Your task to perform on an android device: Open sound settings Image 0: 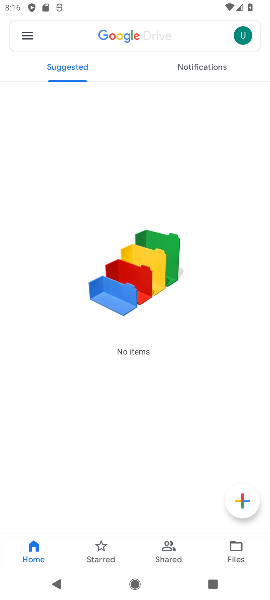
Step 0: drag from (166, 471) to (40, 540)
Your task to perform on an android device: Open sound settings Image 1: 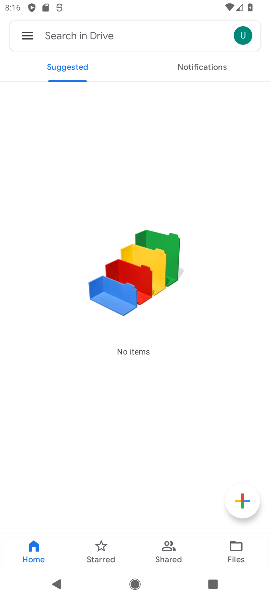
Step 1: drag from (183, 447) to (192, 280)
Your task to perform on an android device: Open sound settings Image 2: 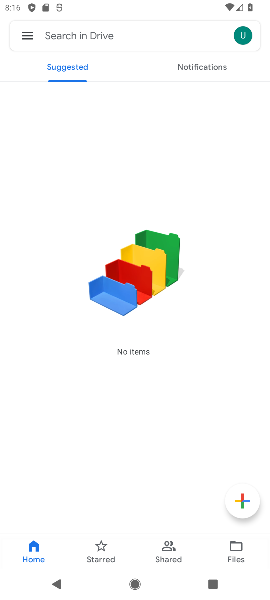
Step 2: drag from (86, 469) to (202, 235)
Your task to perform on an android device: Open sound settings Image 3: 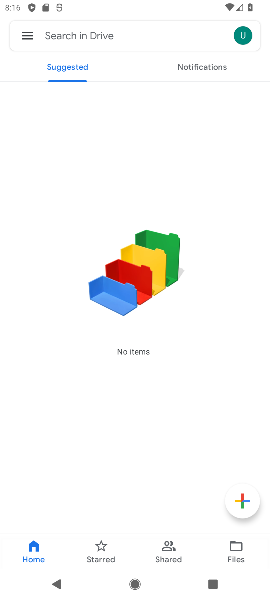
Step 3: drag from (116, 406) to (179, 156)
Your task to perform on an android device: Open sound settings Image 4: 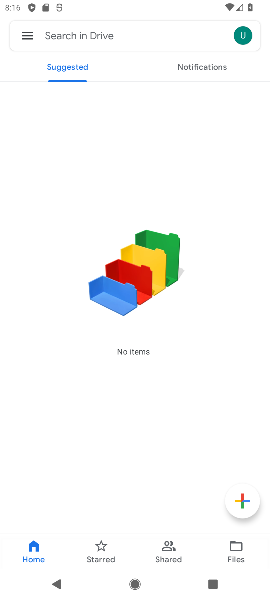
Step 4: press home button
Your task to perform on an android device: Open sound settings Image 5: 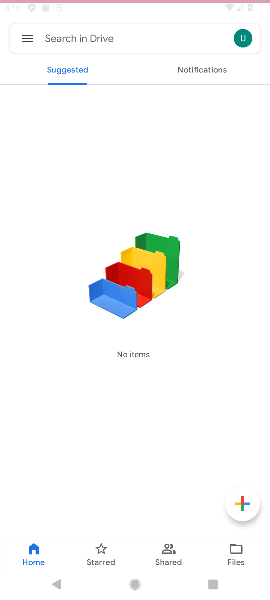
Step 5: press home button
Your task to perform on an android device: Open sound settings Image 6: 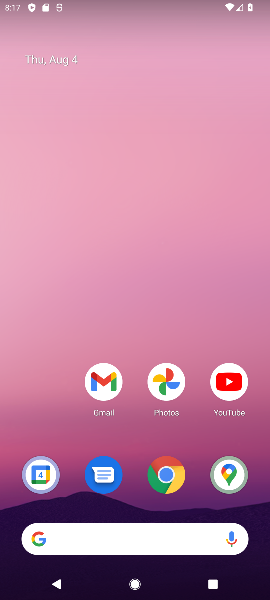
Step 6: drag from (140, 469) to (145, 308)
Your task to perform on an android device: Open sound settings Image 7: 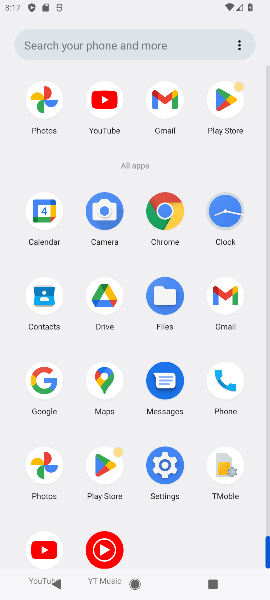
Step 7: click (167, 453)
Your task to perform on an android device: Open sound settings Image 8: 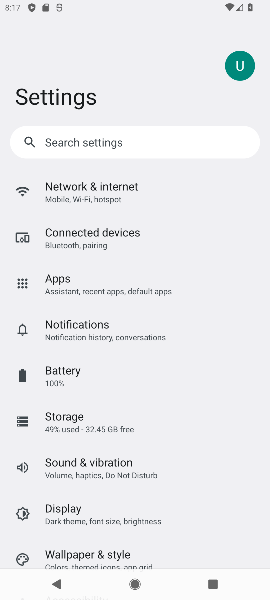
Step 8: drag from (104, 477) to (101, 178)
Your task to perform on an android device: Open sound settings Image 9: 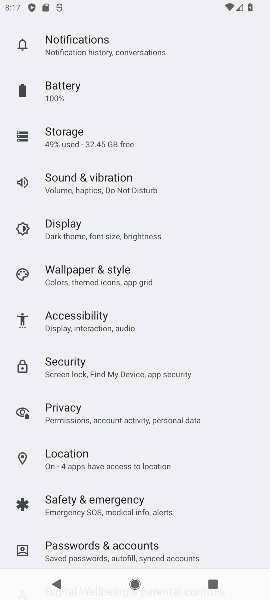
Step 9: drag from (101, 454) to (140, 182)
Your task to perform on an android device: Open sound settings Image 10: 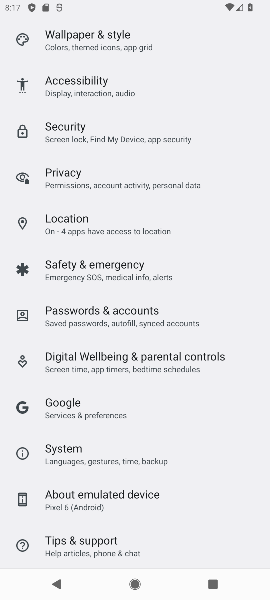
Step 10: drag from (130, 539) to (133, 319)
Your task to perform on an android device: Open sound settings Image 11: 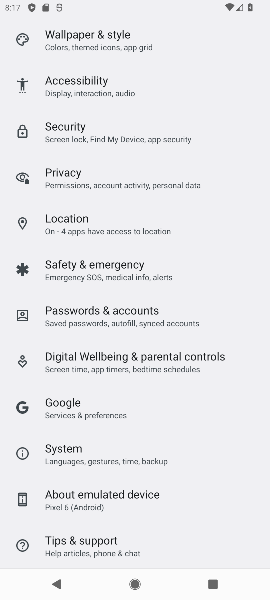
Step 11: click (99, 403)
Your task to perform on an android device: Open sound settings Image 12: 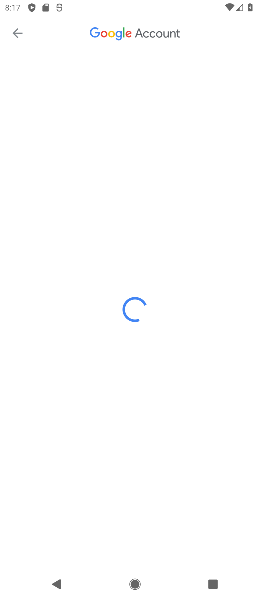
Step 12: task complete